Your task to perform on an android device: open app "Microsoft Excel" (install if not already installed) and go to login screen Image 0: 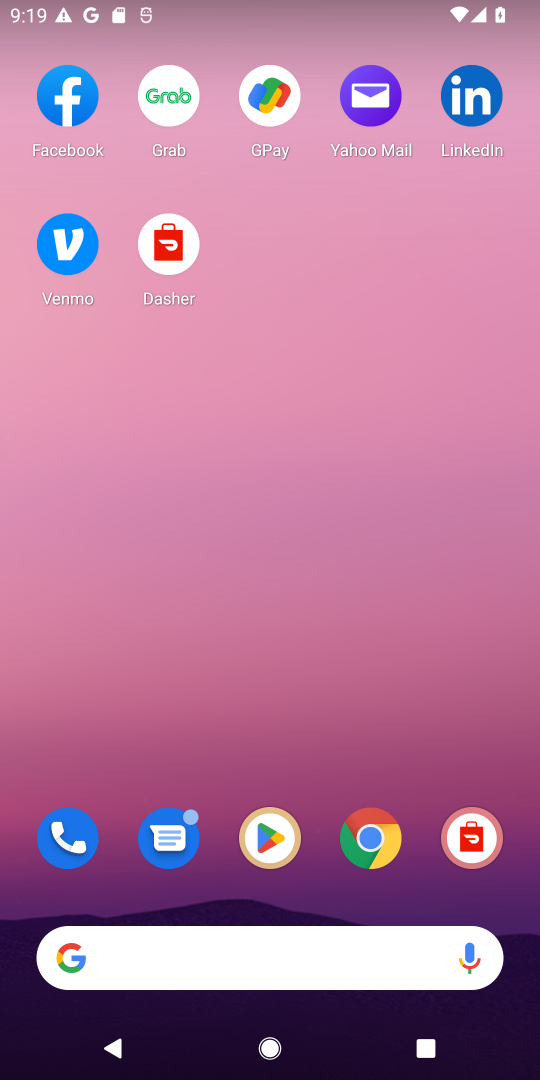
Step 0: click (280, 833)
Your task to perform on an android device: open app "Microsoft Excel" (install if not already installed) and go to login screen Image 1: 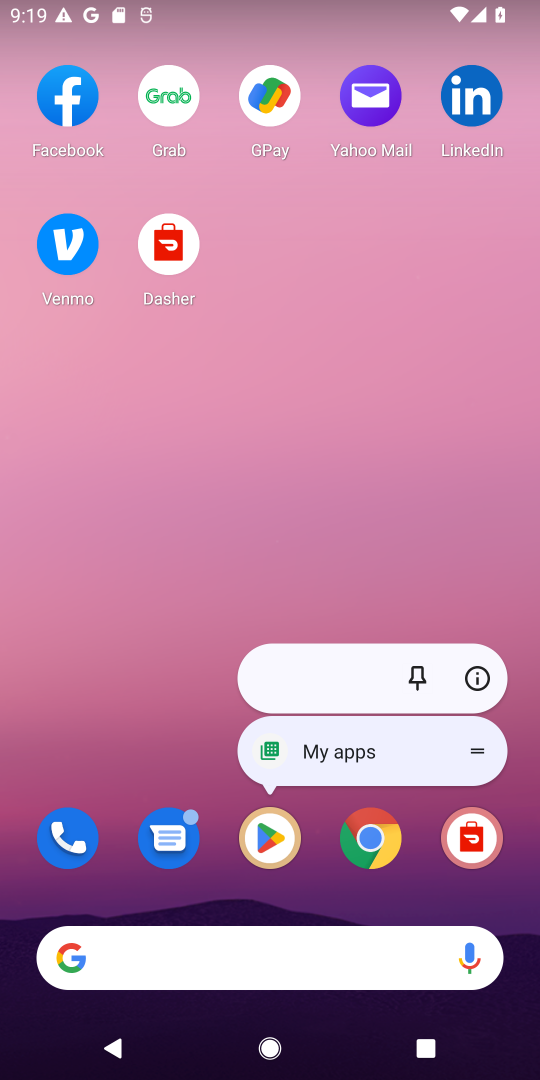
Step 1: click (276, 841)
Your task to perform on an android device: open app "Microsoft Excel" (install if not already installed) and go to login screen Image 2: 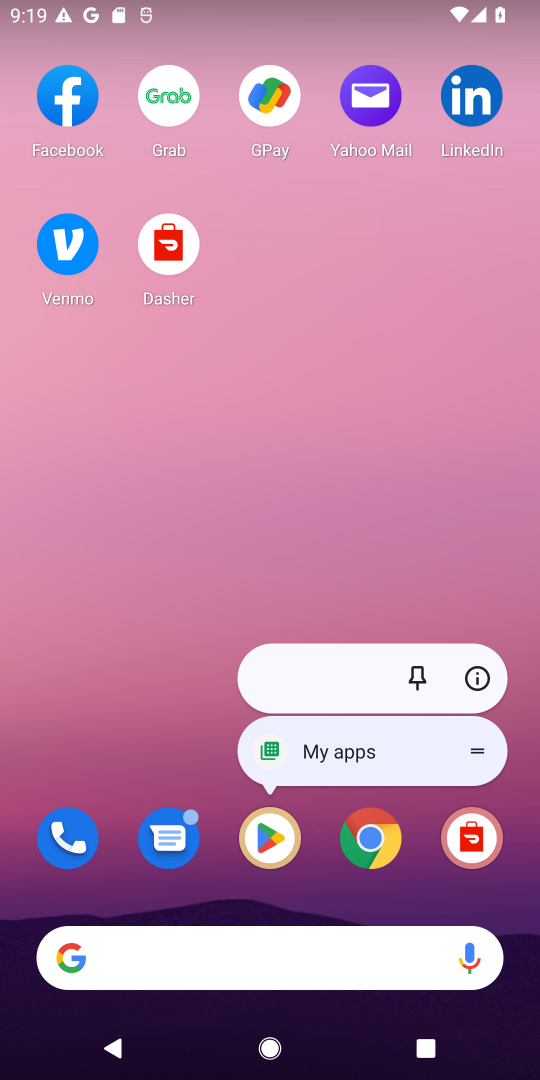
Step 2: click (276, 841)
Your task to perform on an android device: open app "Microsoft Excel" (install if not already installed) and go to login screen Image 3: 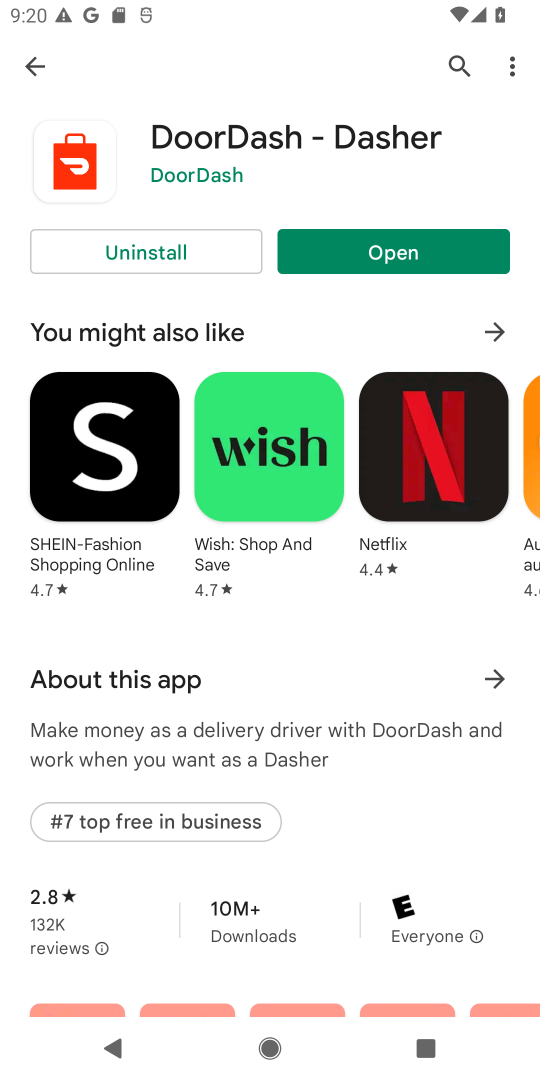
Step 3: click (451, 62)
Your task to perform on an android device: open app "Microsoft Excel" (install if not already installed) and go to login screen Image 4: 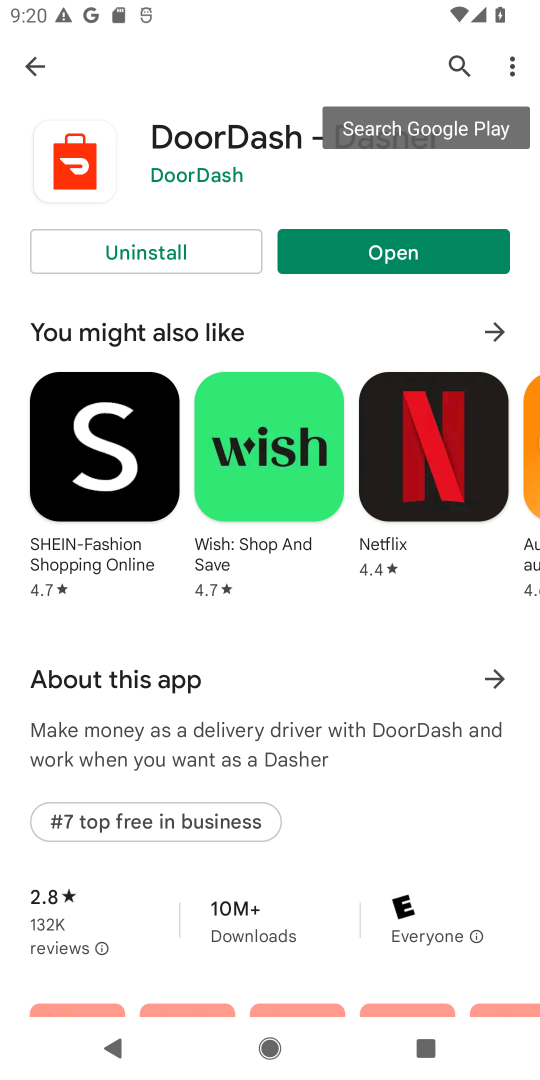
Step 4: click (455, 69)
Your task to perform on an android device: open app "Microsoft Excel" (install if not already installed) and go to login screen Image 5: 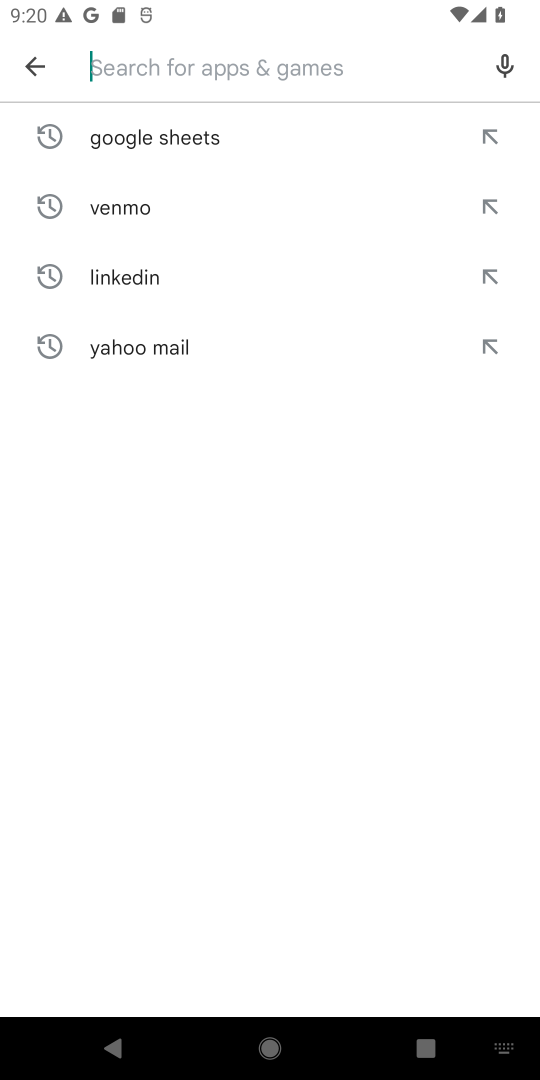
Step 5: type "Microsoft Excel"
Your task to perform on an android device: open app "Microsoft Excel" (install if not already installed) and go to login screen Image 6: 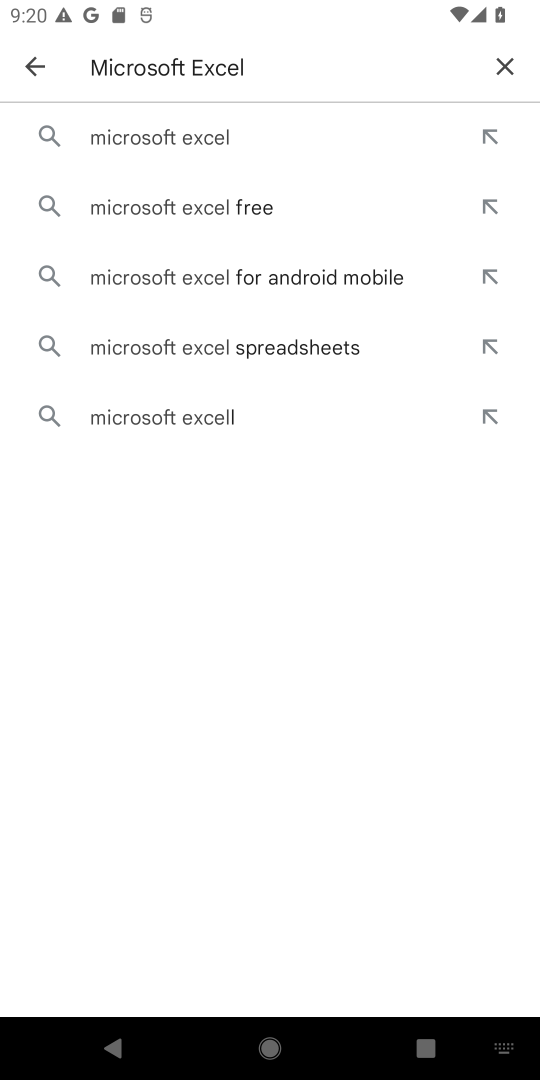
Step 6: click (221, 117)
Your task to perform on an android device: open app "Microsoft Excel" (install if not already installed) and go to login screen Image 7: 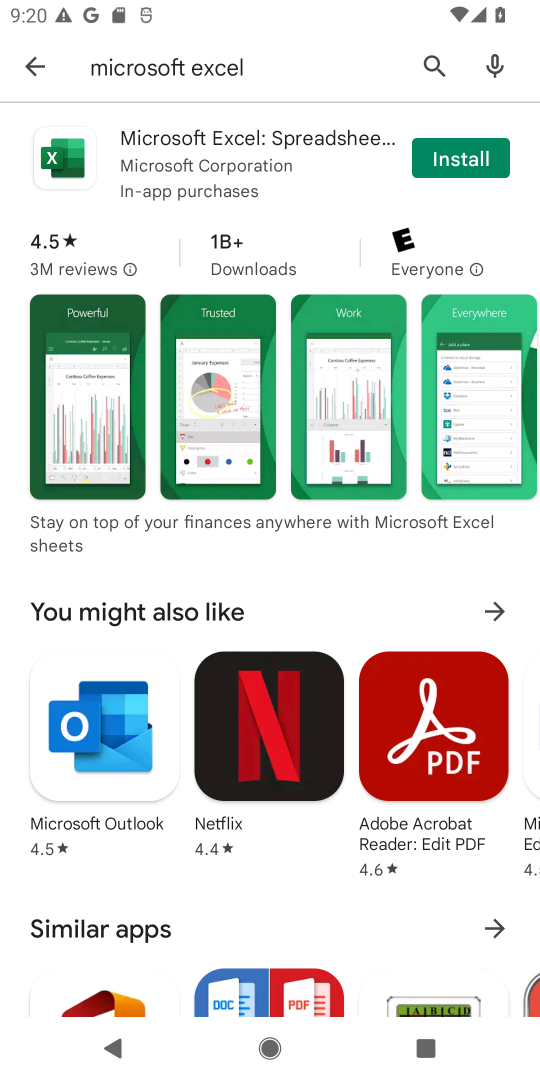
Step 7: click (432, 159)
Your task to perform on an android device: open app "Microsoft Excel" (install if not already installed) and go to login screen Image 8: 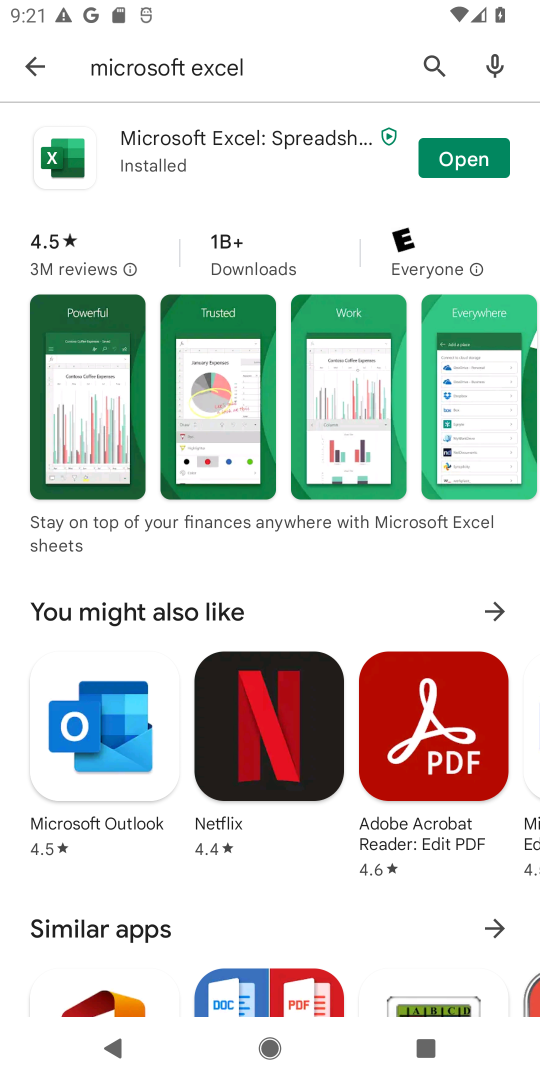
Step 8: click (458, 161)
Your task to perform on an android device: open app "Microsoft Excel" (install if not already installed) and go to login screen Image 9: 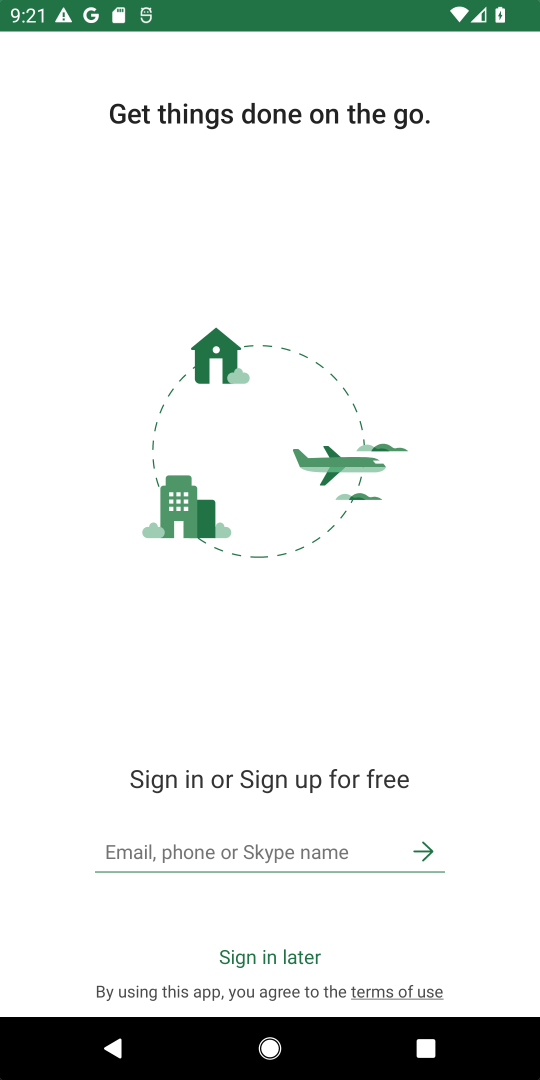
Step 9: task complete